Your task to perform on an android device: change alarm snooze length Image 0: 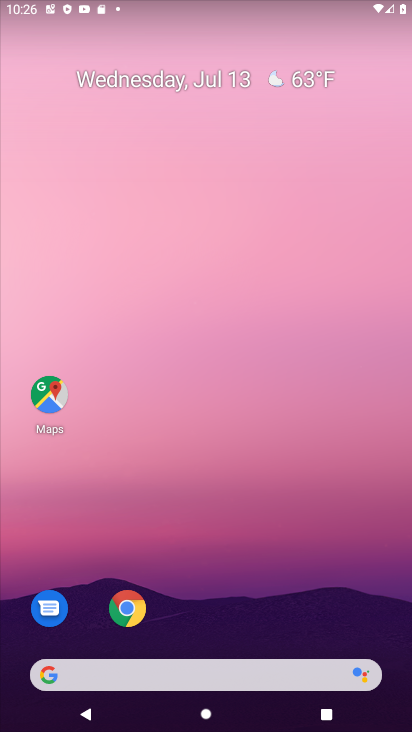
Step 0: press home button
Your task to perform on an android device: change alarm snooze length Image 1: 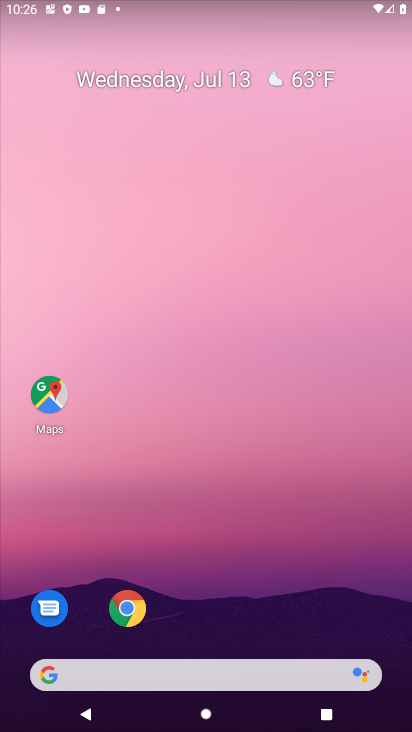
Step 1: drag from (276, 626) to (349, 186)
Your task to perform on an android device: change alarm snooze length Image 2: 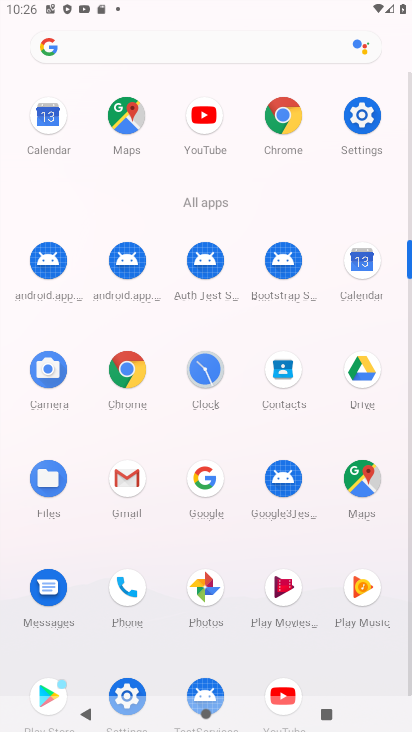
Step 2: click (195, 369)
Your task to perform on an android device: change alarm snooze length Image 3: 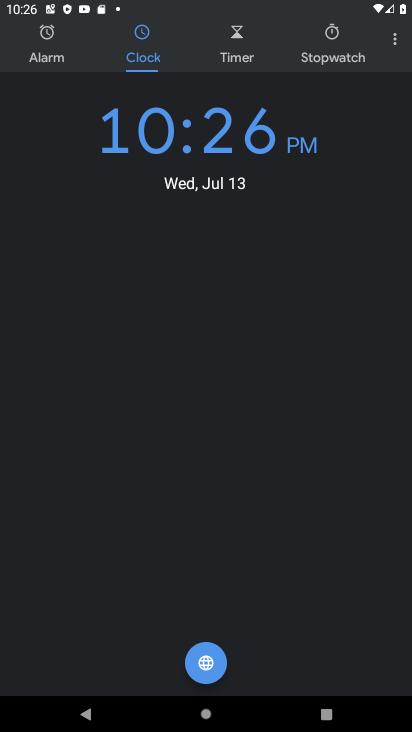
Step 3: click (396, 41)
Your task to perform on an android device: change alarm snooze length Image 4: 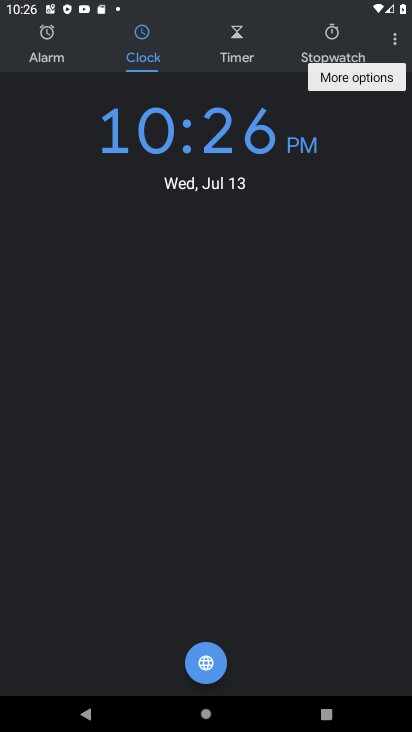
Step 4: click (396, 41)
Your task to perform on an android device: change alarm snooze length Image 5: 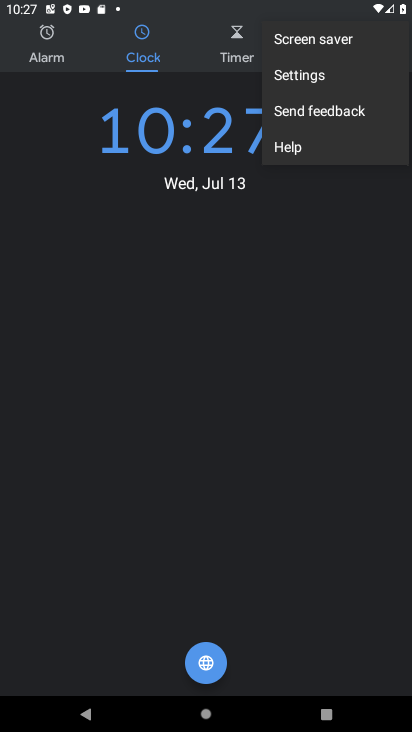
Step 5: click (320, 75)
Your task to perform on an android device: change alarm snooze length Image 6: 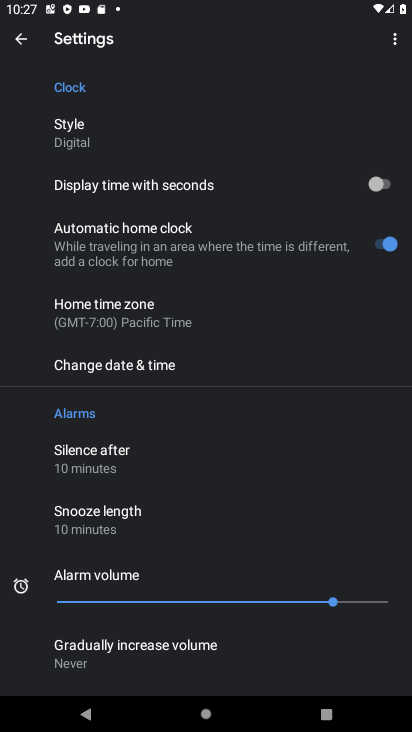
Step 6: click (128, 528)
Your task to perform on an android device: change alarm snooze length Image 7: 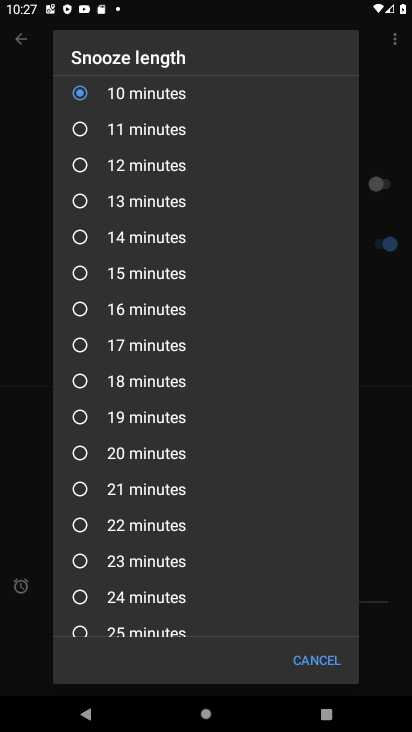
Step 7: click (87, 129)
Your task to perform on an android device: change alarm snooze length Image 8: 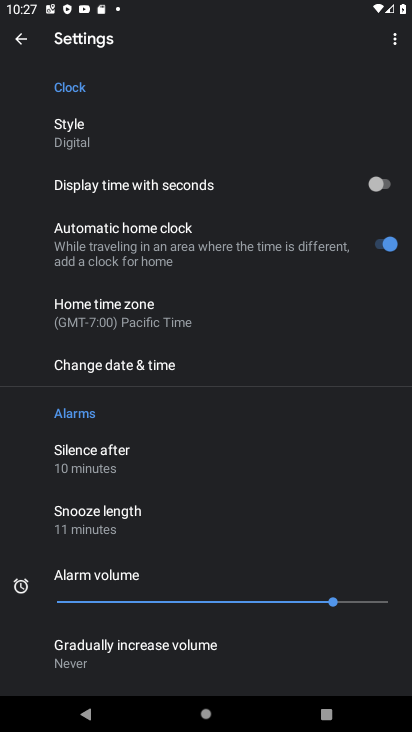
Step 8: task complete